Your task to perform on an android device: delete a single message in the gmail app Image 0: 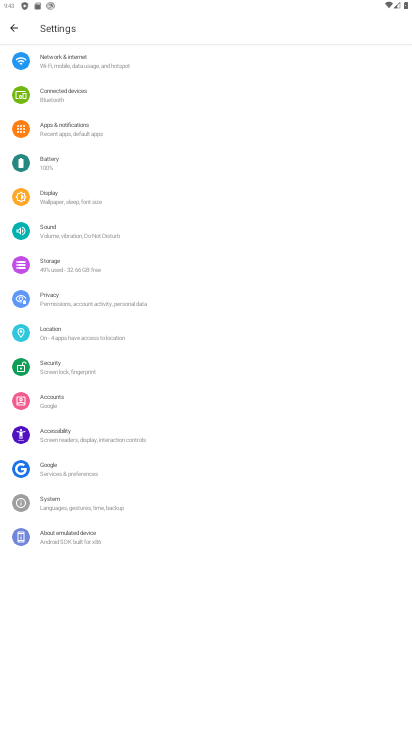
Step 0: press home button
Your task to perform on an android device: delete a single message in the gmail app Image 1: 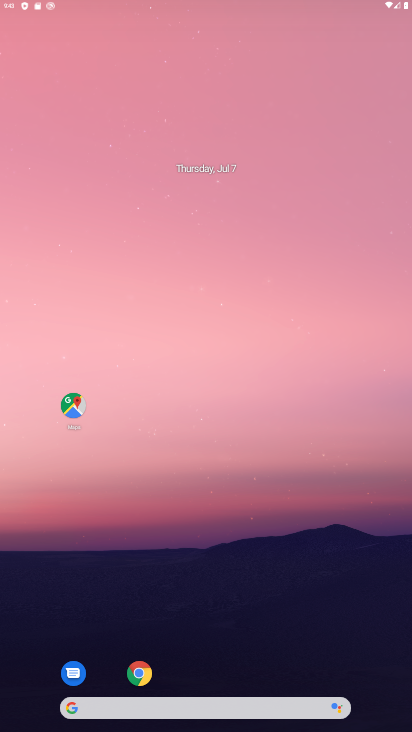
Step 1: drag from (192, 397) to (113, 2)
Your task to perform on an android device: delete a single message in the gmail app Image 2: 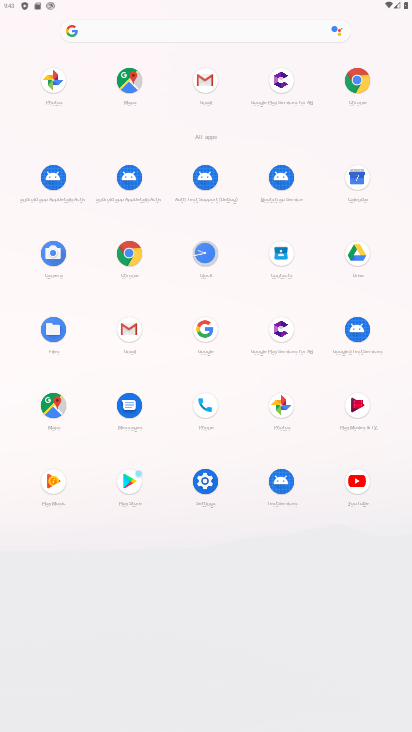
Step 2: click (138, 332)
Your task to perform on an android device: delete a single message in the gmail app Image 3: 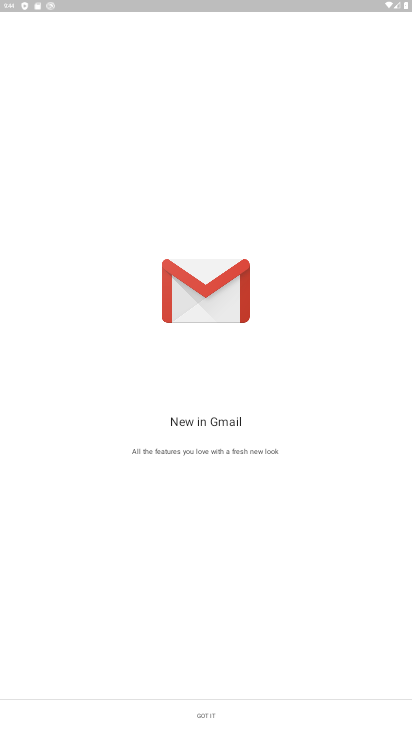
Step 3: click (241, 717)
Your task to perform on an android device: delete a single message in the gmail app Image 4: 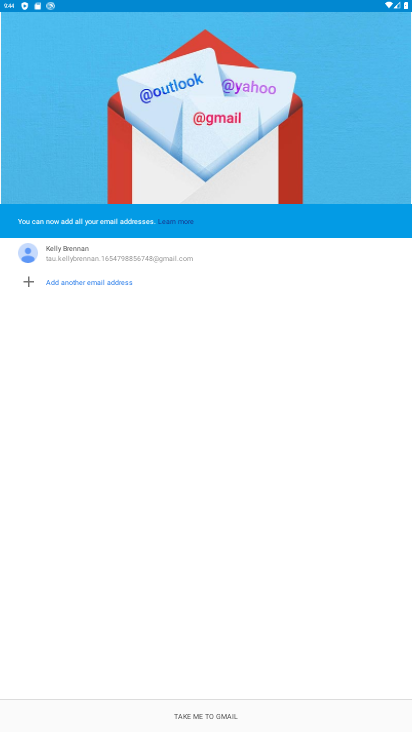
Step 4: click (155, 715)
Your task to perform on an android device: delete a single message in the gmail app Image 5: 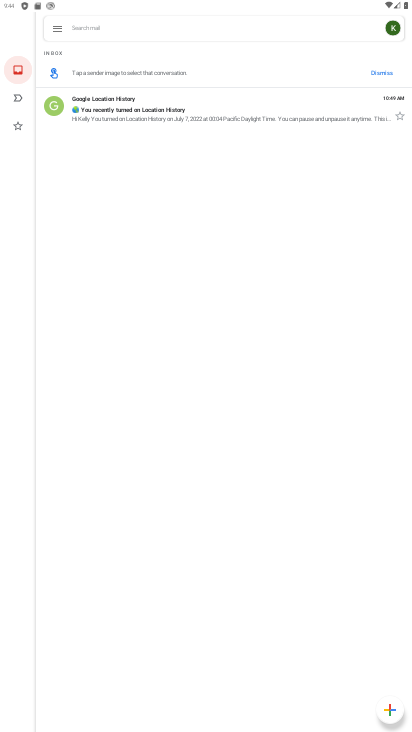
Step 5: click (299, 105)
Your task to perform on an android device: delete a single message in the gmail app Image 6: 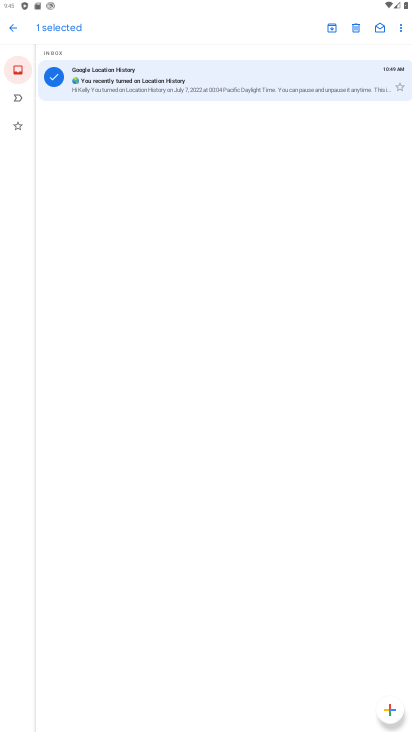
Step 6: click (352, 34)
Your task to perform on an android device: delete a single message in the gmail app Image 7: 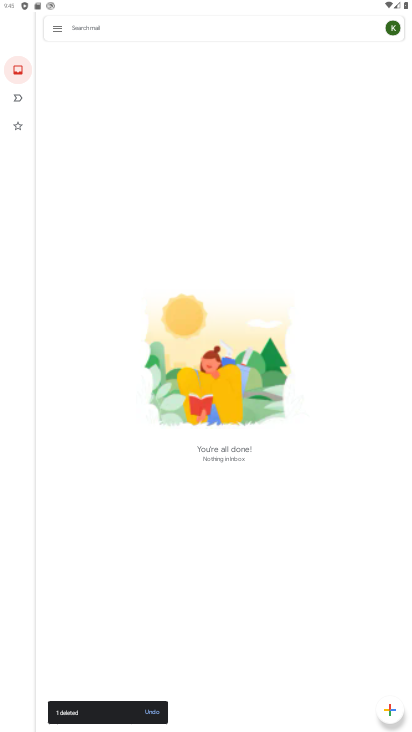
Step 7: task complete